Your task to perform on an android device: Search for lg ultragear on target, select the first entry, add it to the cart, then select checkout. Image 0: 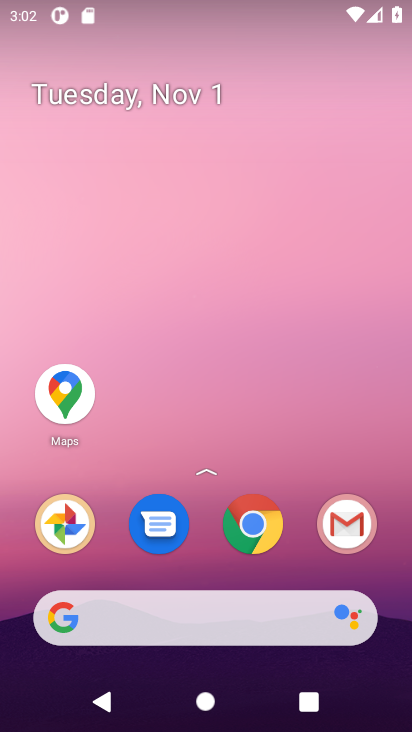
Step 0: click (251, 525)
Your task to perform on an android device: Search for lg ultragear on target, select the first entry, add it to the cart, then select checkout. Image 1: 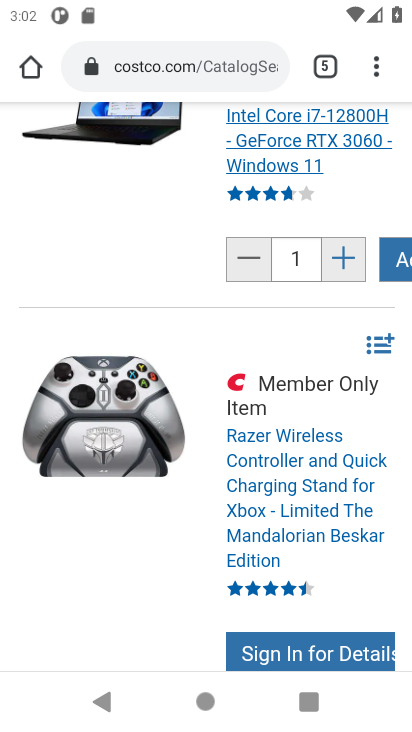
Step 1: click (180, 43)
Your task to perform on an android device: Search for lg ultragear on target, select the first entry, add it to the cart, then select checkout. Image 2: 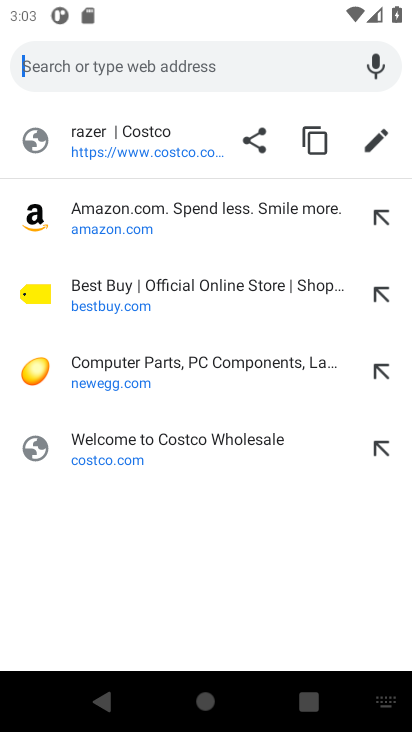
Step 2: type "target"
Your task to perform on an android device: Search for lg ultragear on target, select the first entry, add it to the cart, then select checkout. Image 3: 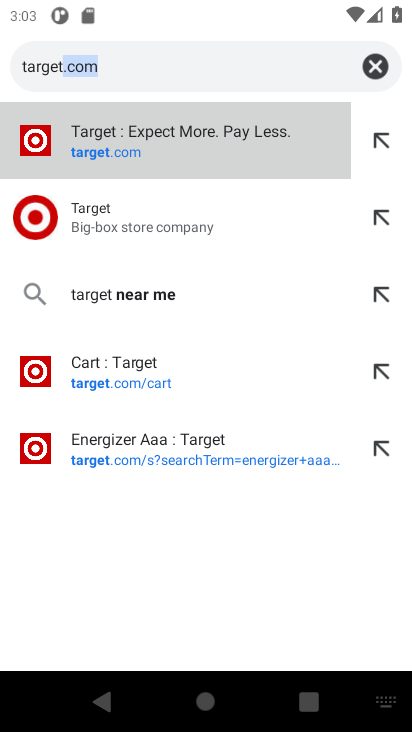
Step 3: click (92, 128)
Your task to perform on an android device: Search for lg ultragear on target, select the first entry, add it to the cart, then select checkout. Image 4: 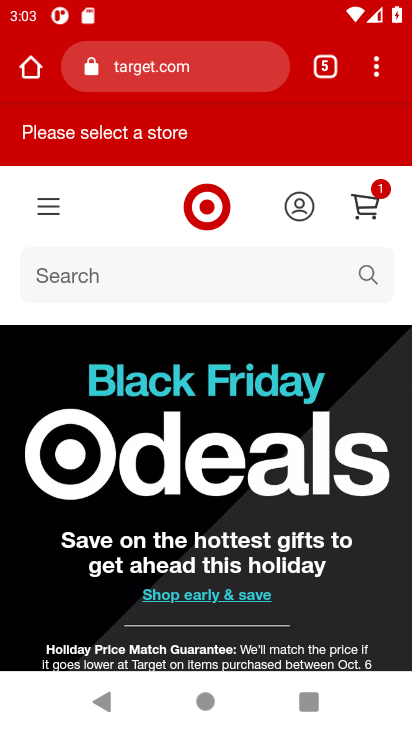
Step 4: click (118, 275)
Your task to perform on an android device: Search for lg ultragear on target, select the first entry, add it to the cart, then select checkout. Image 5: 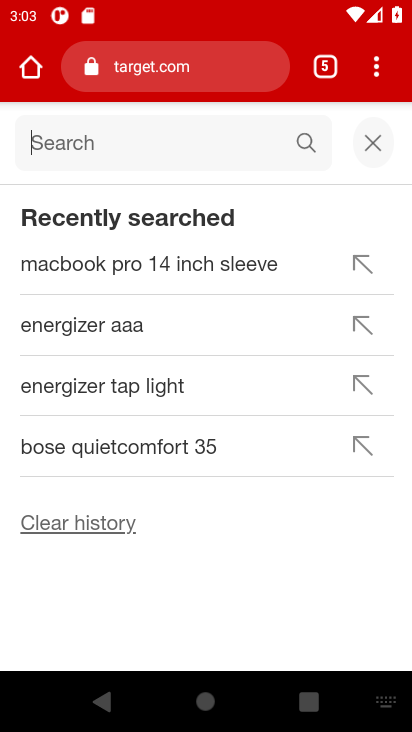
Step 5: type "lg ultragear"
Your task to perform on an android device: Search for lg ultragear on target, select the first entry, add it to the cart, then select checkout. Image 6: 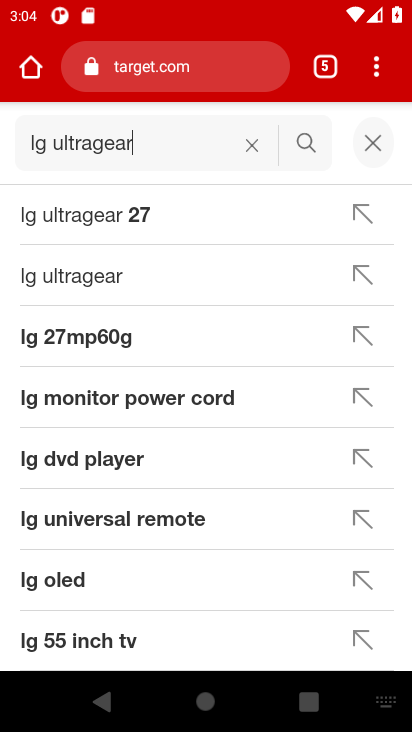
Step 6: click (70, 212)
Your task to perform on an android device: Search for lg ultragear on target, select the first entry, add it to the cart, then select checkout. Image 7: 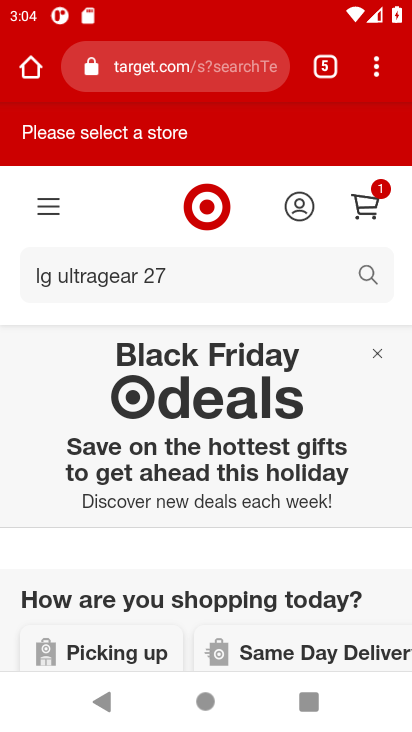
Step 7: drag from (252, 536) to (202, 224)
Your task to perform on an android device: Search for lg ultragear on target, select the first entry, add it to the cart, then select checkout. Image 8: 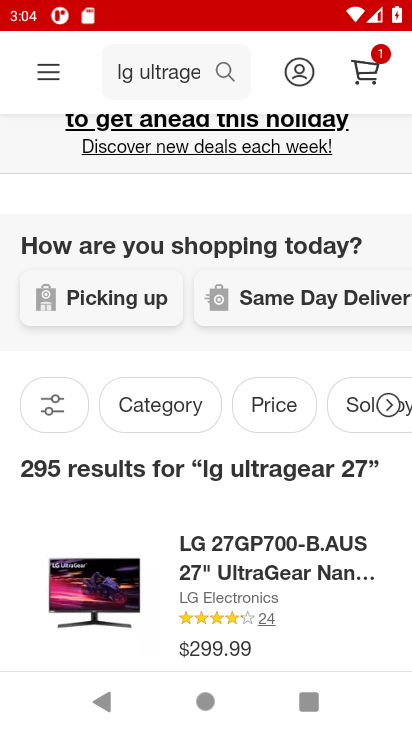
Step 8: drag from (261, 560) to (226, 349)
Your task to perform on an android device: Search for lg ultragear on target, select the first entry, add it to the cart, then select checkout. Image 9: 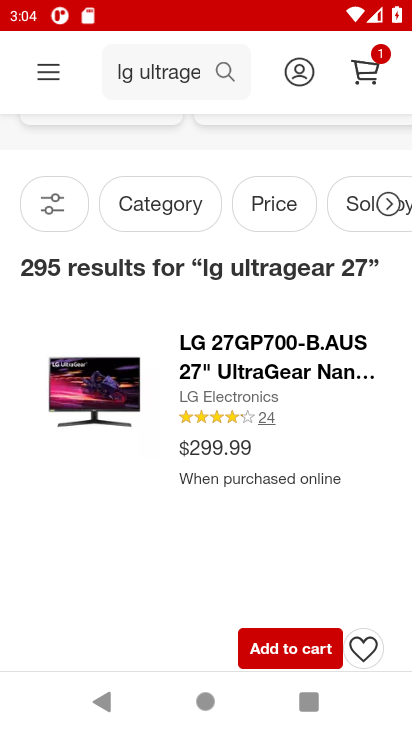
Step 9: drag from (216, 552) to (209, 424)
Your task to perform on an android device: Search for lg ultragear on target, select the first entry, add it to the cart, then select checkout. Image 10: 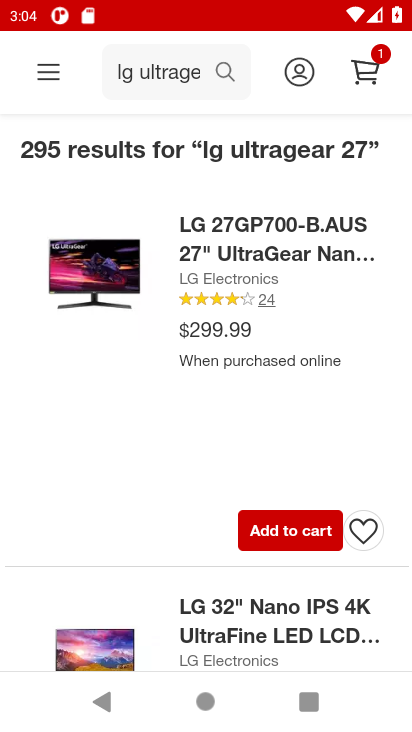
Step 10: click (282, 528)
Your task to perform on an android device: Search for lg ultragear on target, select the first entry, add it to the cart, then select checkout. Image 11: 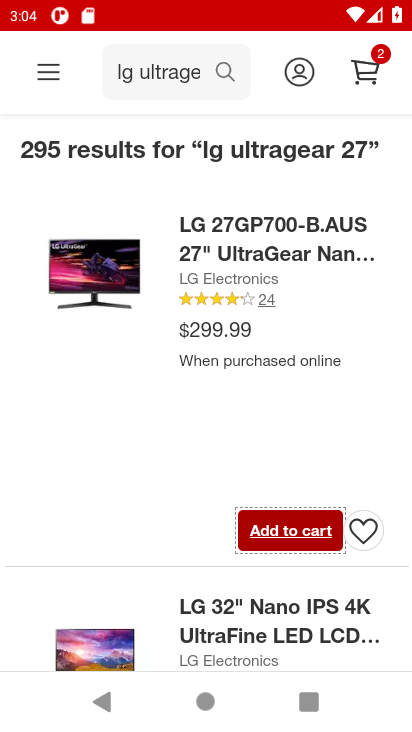
Step 11: click (369, 66)
Your task to perform on an android device: Search for lg ultragear on target, select the first entry, add it to the cart, then select checkout. Image 12: 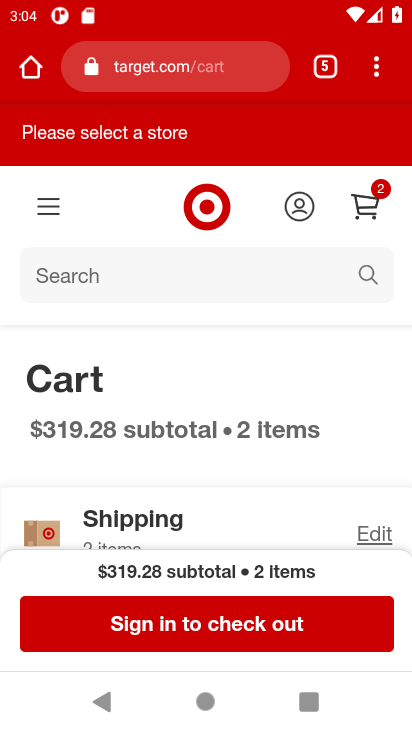
Step 12: click (237, 623)
Your task to perform on an android device: Search for lg ultragear on target, select the first entry, add it to the cart, then select checkout. Image 13: 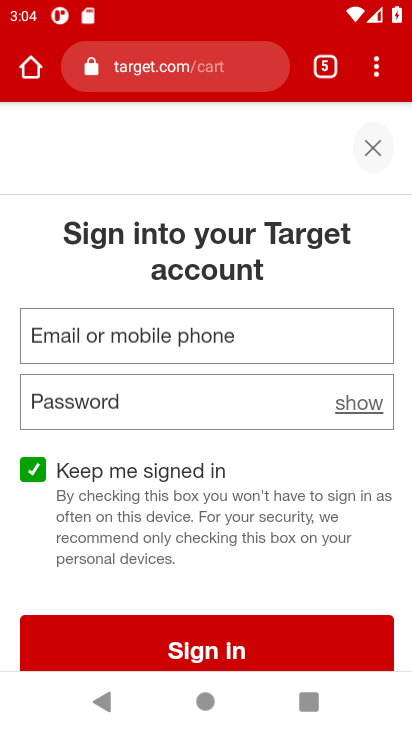
Step 13: task complete